Your task to perform on an android device: open chrome privacy settings Image 0: 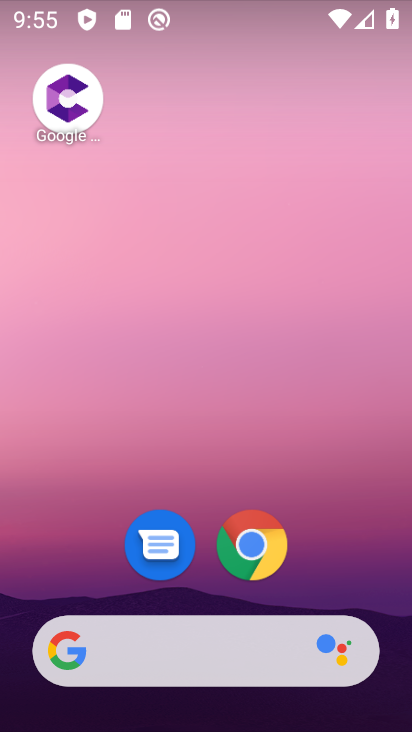
Step 0: click (257, 548)
Your task to perform on an android device: open chrome privacy settings Image 1: 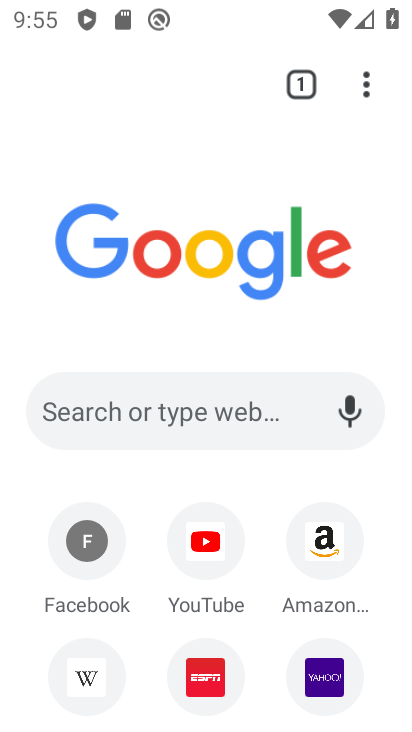
Step 1: click (364, 82)
Your task to perform on an android device: open chrome privacy settings Image 2: 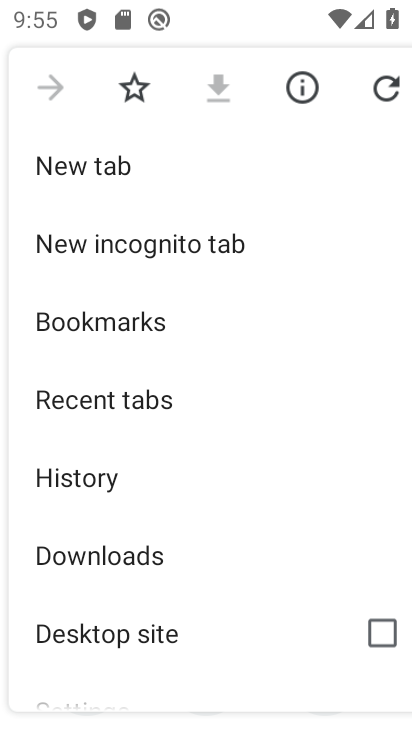
Step 2: drag from (263, 499) to (199, 37)
Your task to perform on an android device: open chrome privacy settings Image 3: 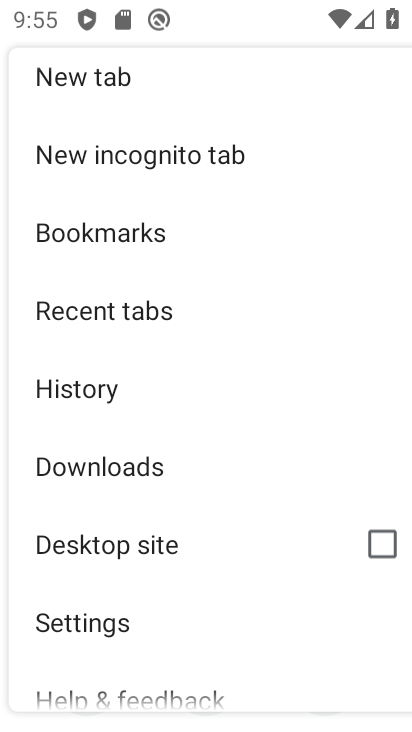
Step 3: click (103, 610)
Your task to perform on an android device: open chrome privacy settings Image 4: 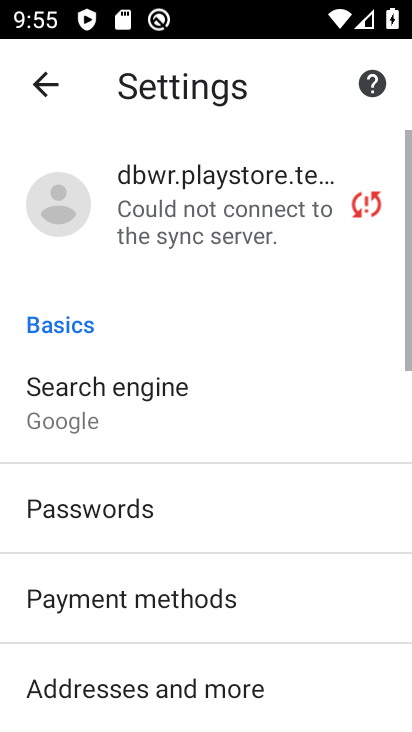
Step 4: drag from (104, 607) to (171, 176)
Your task to perform on an android device: open chrome privacy settings Image 5: 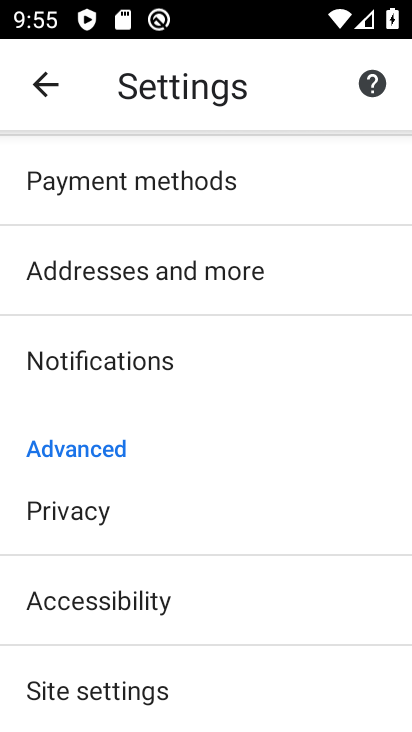
Step 5: click (110, 512)
Your task to perform on an android device: open chrome privacy settings Image 6: 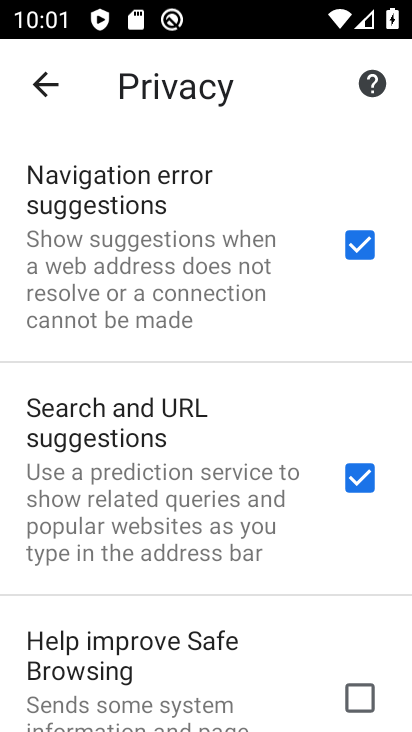
Step 6: task complete